Your task to perform on an android device: Go to Amazon Image 0: 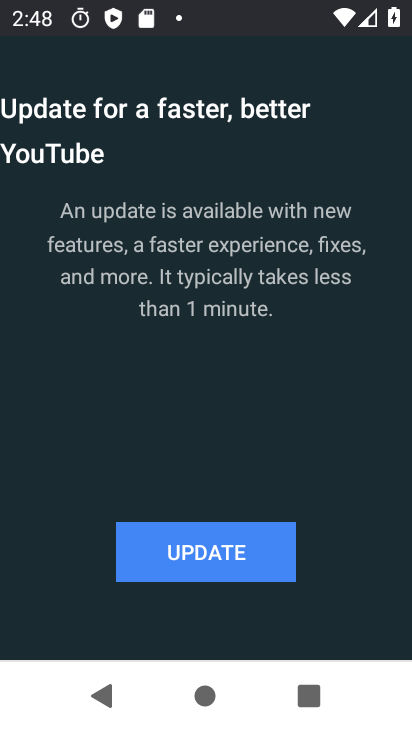
Step 0: press home button
Your task to perform on an android device: Go to Amazon Image 1: 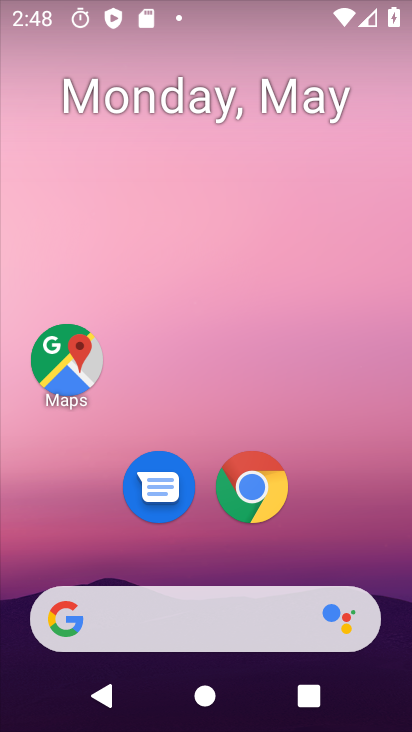
Step 1: click (259, 494)
Your task to perform on an android device: Go to Amazon Image 2: 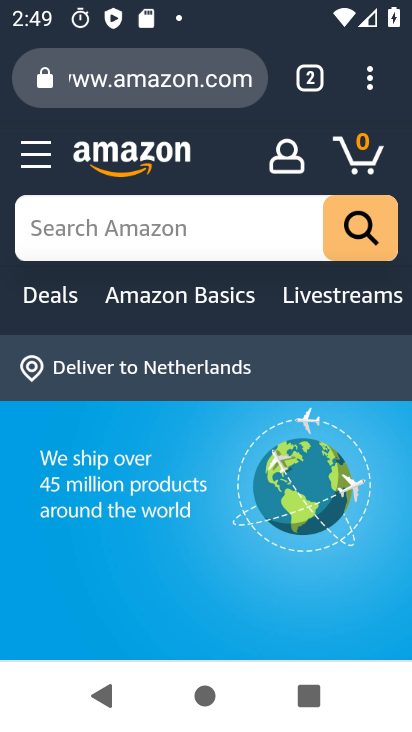
Step 2: task complete